Your task to perform on an android device: turn smart compose on in the gmail app Image 0: 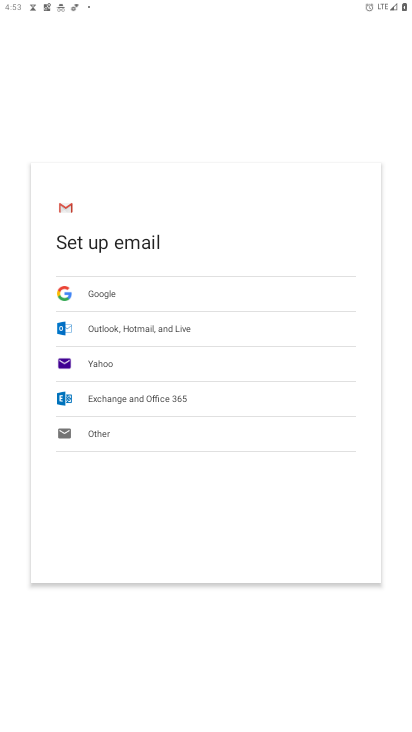
Step 0: press home button
Your task to perform on an android device: turn smart compose on in the gmail app Image 1: 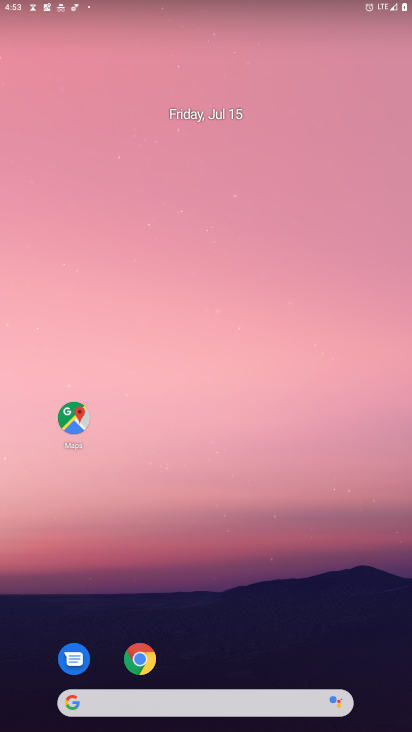
Step 1: drag from (309, 687) to (250, 66)
Your task to perform on an android device: turn smart compose on in the gmail app Image 2: 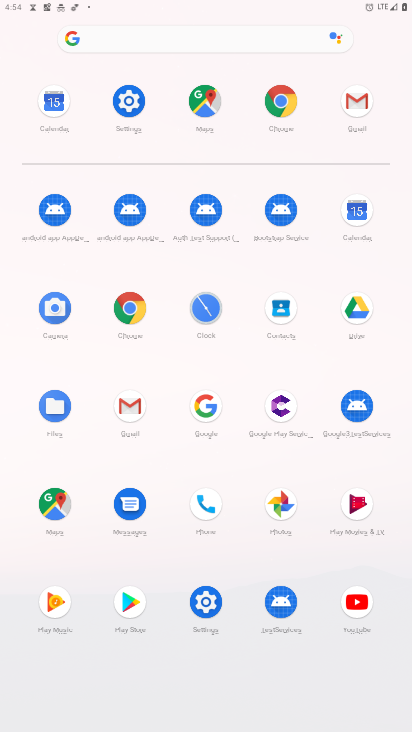
Step 2: click (128, 106)
Your task to perform on an android device: turn smart compose on in the gmail app Image 3: 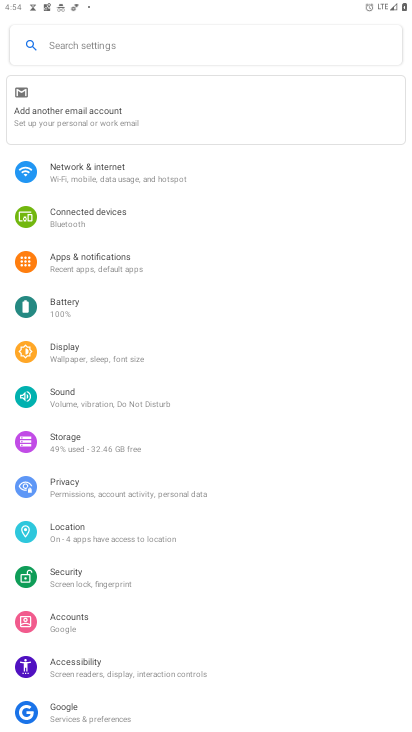
Step 3: press home button
Your task to perform on an android device: turn smart compose on in the gmail app Image 4: 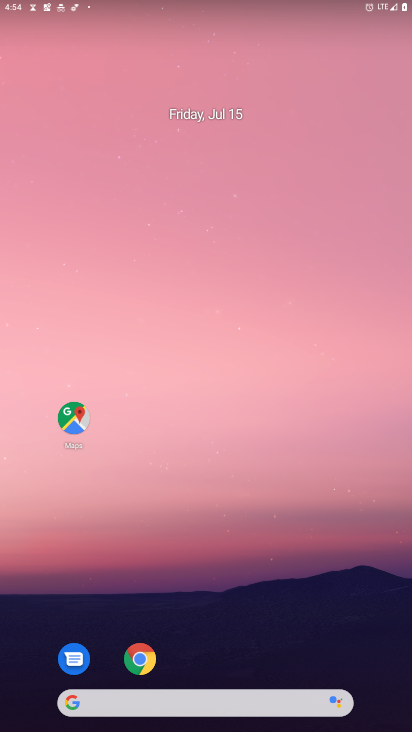
Step 4: drag from (287, 687) to (322, 73)
Your task to perform on an android device: turn smart compose on in the gmail app Image 5: 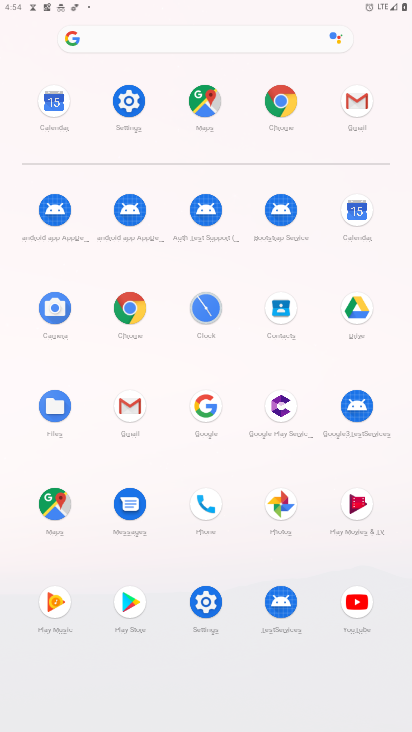
Step 5: click (140, 408)
Your task to perform on an android device: turn smart compose on in the gmail app Image 6: 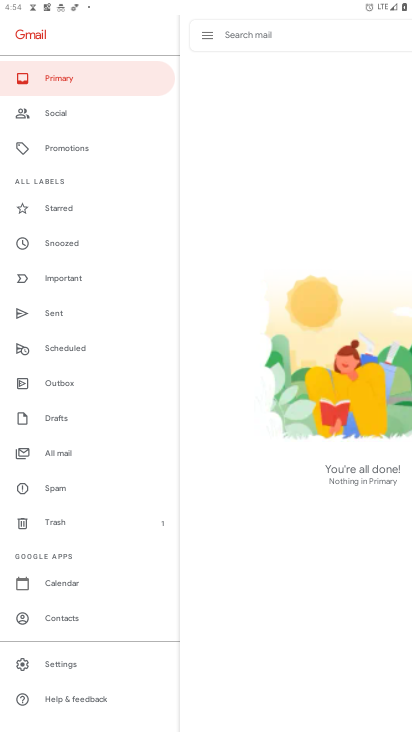
Step 6: click (66, 659)
Your task to perform on an android device: turn smart compose on in the gmail app Image 7: 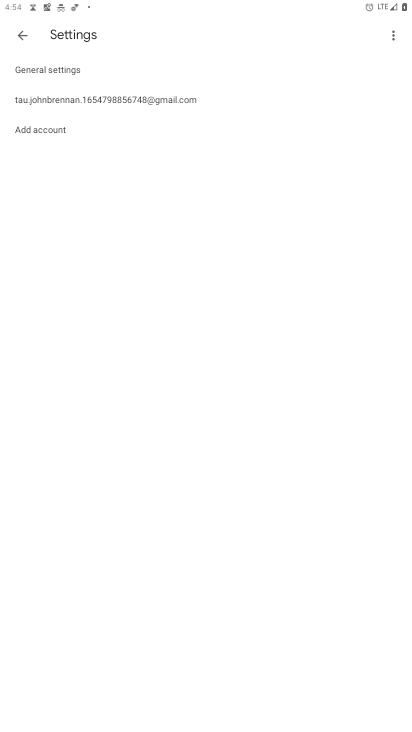
Step 7: click (60, 93)
Your task to perform on an android device: turn smart compose on in the gmail app Image 8: 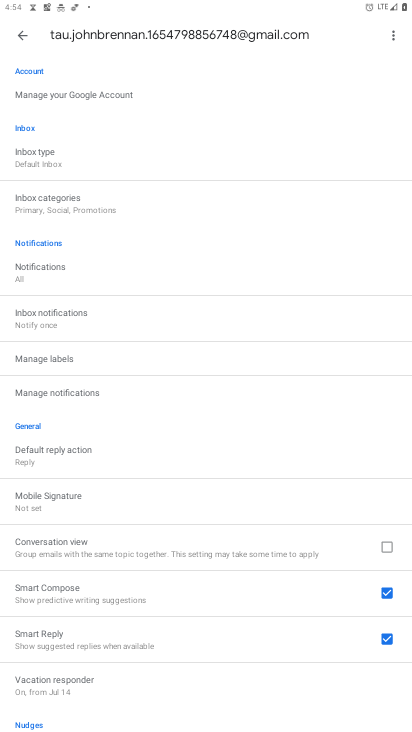
Step 8: task complete